Your task to perform on an android device: Open Amazon Image 0: 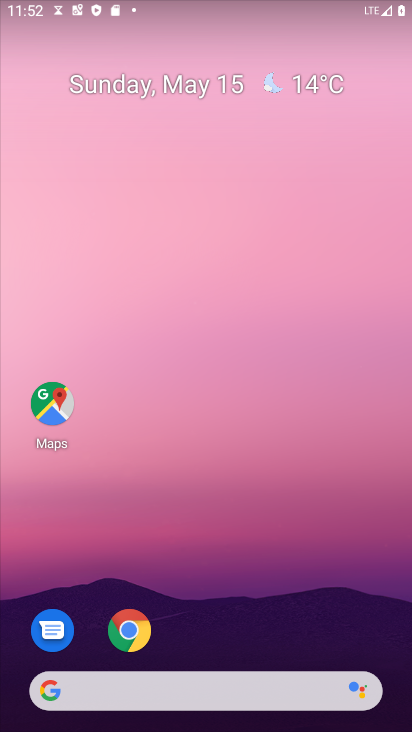
Step 0: click (125, 634)
Your task to perform on an android device: Open Amazon Image 1: 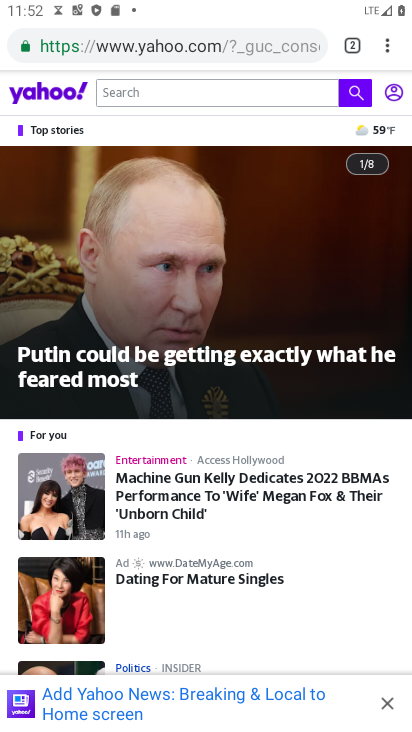
Step 1: click (355, 52)
Your task to perform on an android device: Open Amazon Image 2: 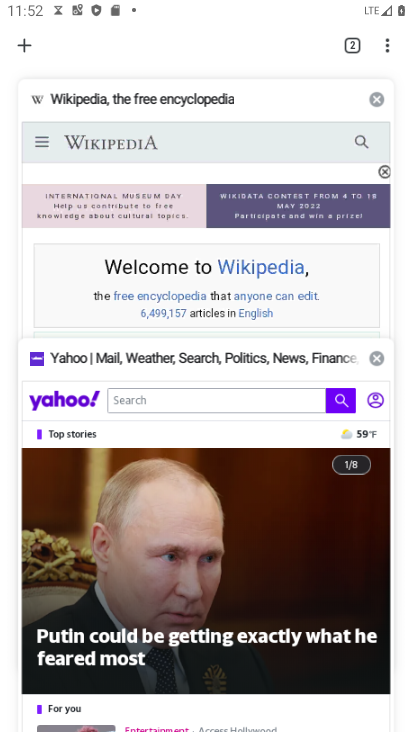
Step 2: click (378, 100)
Your task to perform on an android device: Open Amazon Image 3: 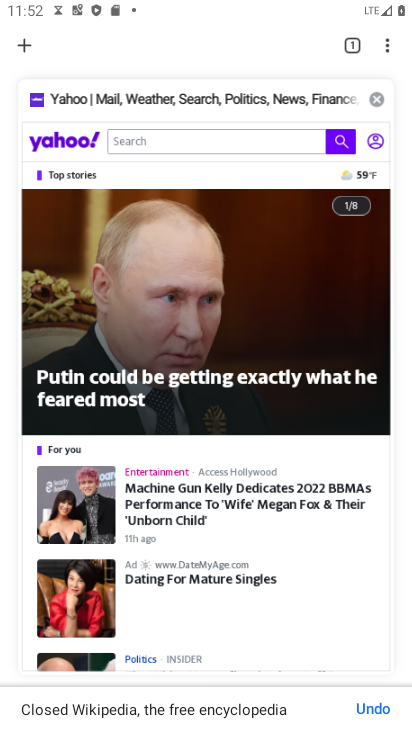
Step 3: click (379, 100)
Your task to perform on an android device: Open Amazon Image 4: 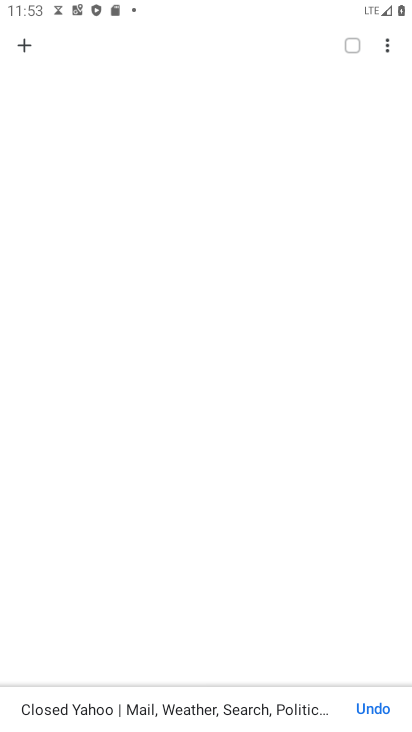
Step 4: click (21, 51)
Your task to perform on an android device: Open Amazon Image 5: 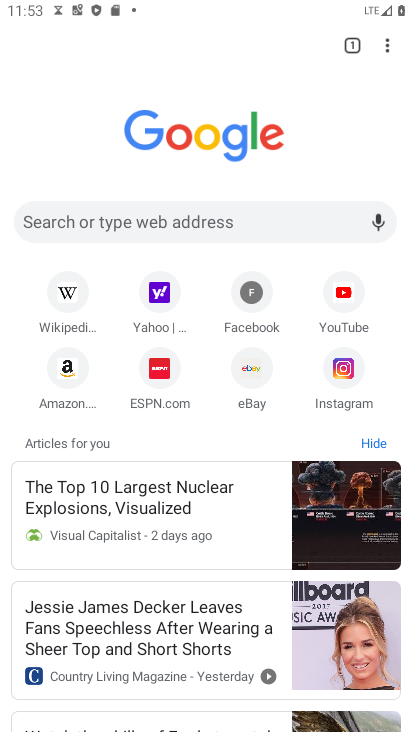
Step 5: click (57, 369)
Your task to perform on an android device: Open Amazon Image 6: 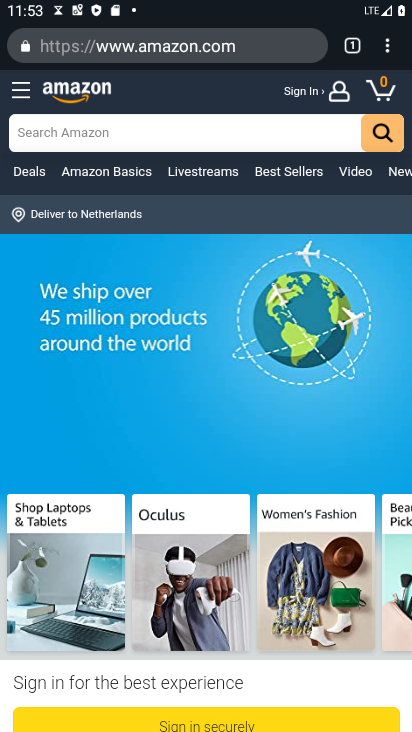
Step 6: task complete